Your task to perform on an android device: Where can I buy a nice beach tote? Image 0: 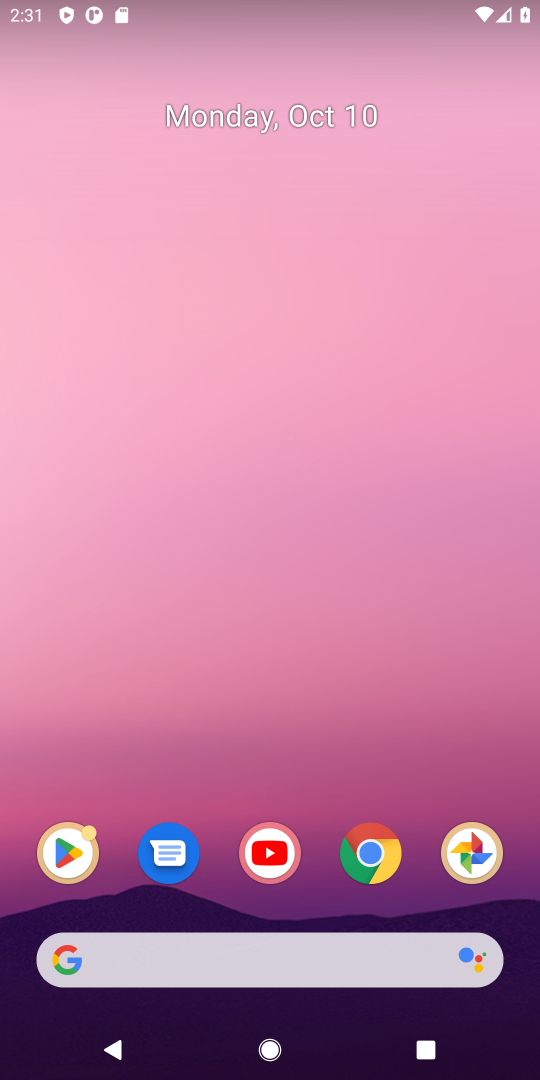
Step 0: click (362, 848)
Your task to perform on an android device: Where can I buy a nice beach tote? Image 1: 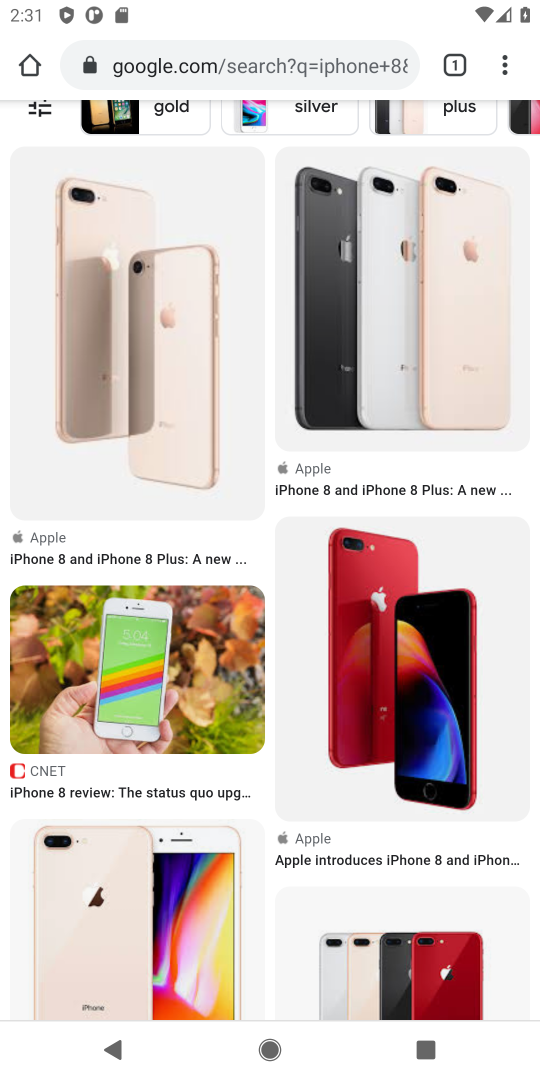
Step 1: click (249, 61)
Your task to perform on an android device: Where can I buy a nice beach tote? Image 2: 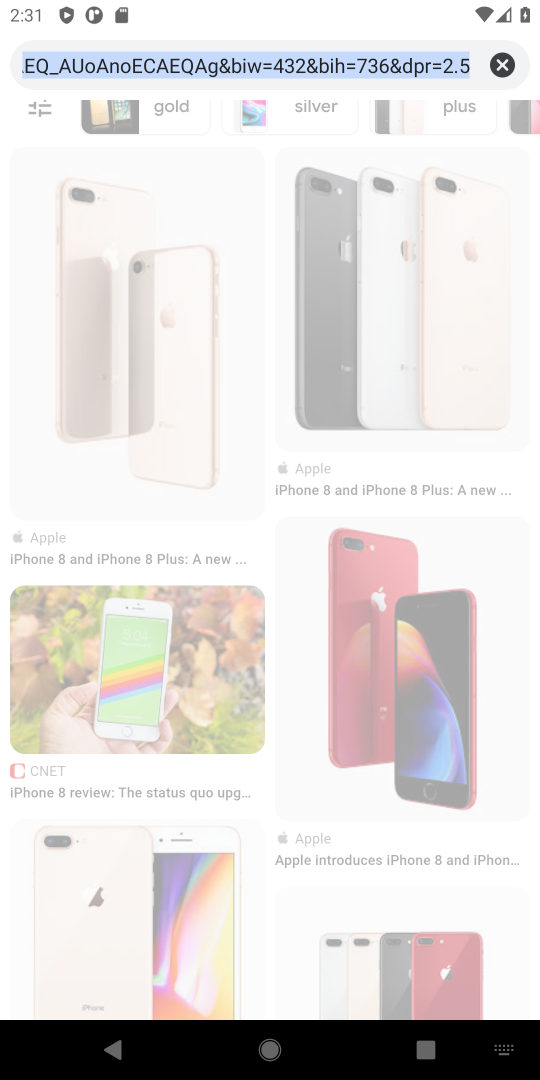
Step 2: type "buy nice beach tote"
Your task to perform on an android device: Where can I buy a nice beach tote? Image 3: 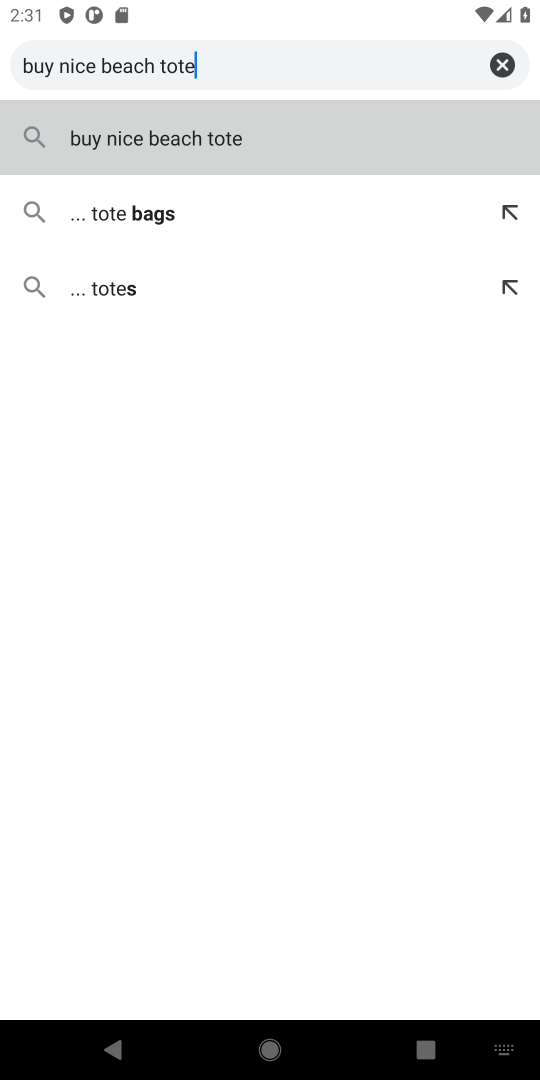
Step 3: click (241, 136)
Your task to perform on an android device: Where can I buy a nice beach tote? Image 4: 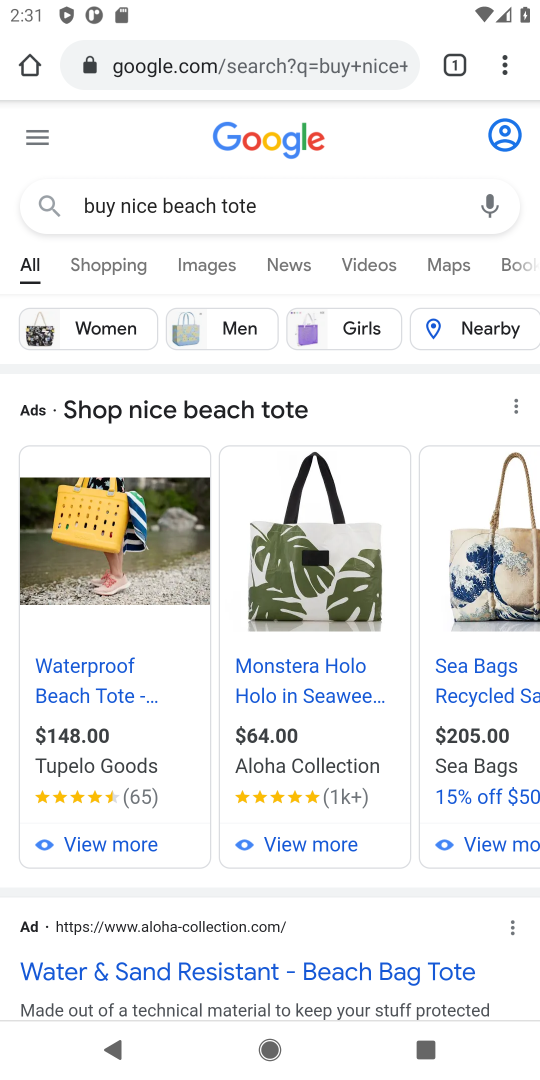
Step 4: task complete